Your task to perform on an android device: Open settings on Google Maps Image 0: 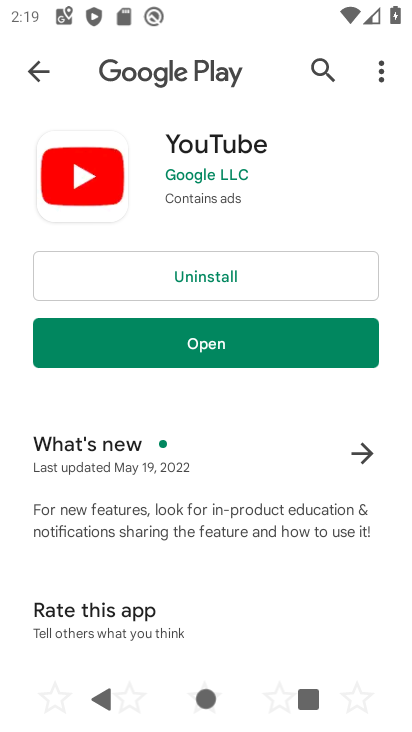
Step 0: press home button
Your task to perform on an android device: Open settings on Google Maps Image 1: 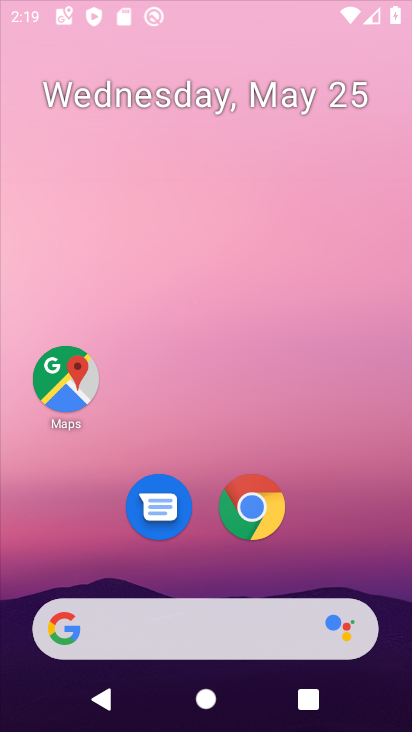
Step 1: drag from (260, 630) to (223, 174)
Your task to perform on an android device: Open settings on Google Maps Image 2: 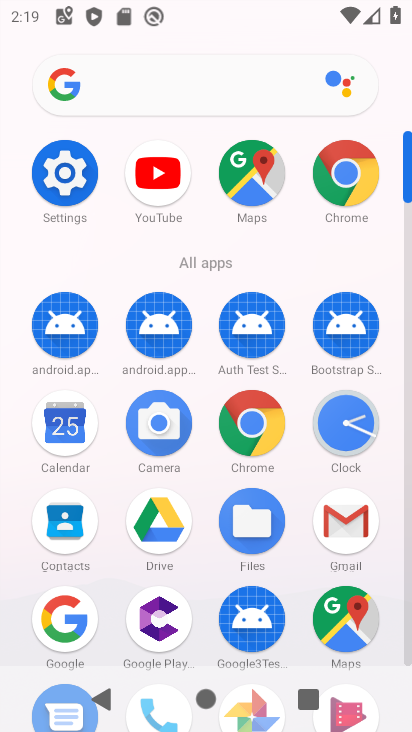
Step 2: drag from (216, 528) to (235, 263)
Your task to perform on an android device: Open settings on Google Maps Image 3: 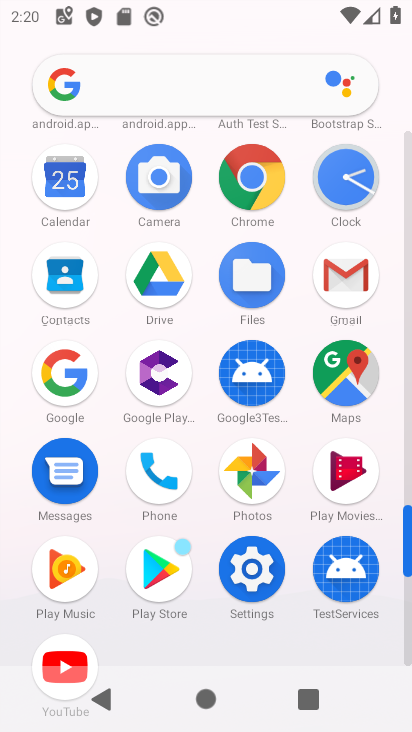
Step 3: click (344, 387)
Your task to perform on an android device: Open settings on Google Maps Image 4: 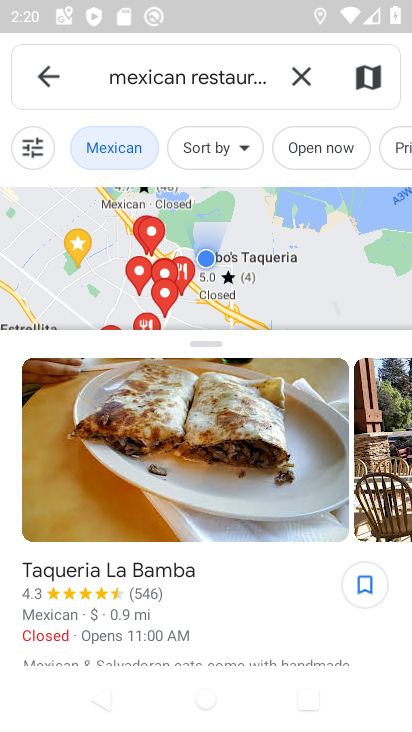
Step 4: click (305, 74)
Your task to perform on an android device: Open settings on Google Maps Image 5: 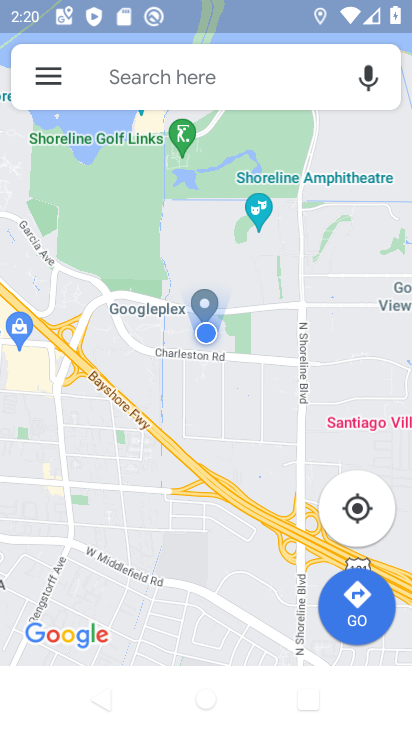
Step 5: click (60, 85)
Your task to perform on an android device: Open settings on Google Maps Image 6: 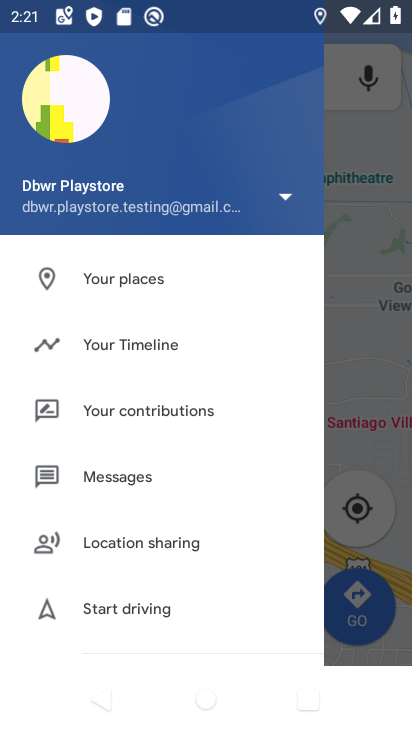
Step 6: drag from (132, 585) to (244, 192)
Your task to perform on an android device: Open settings on Google Maps Image 7: 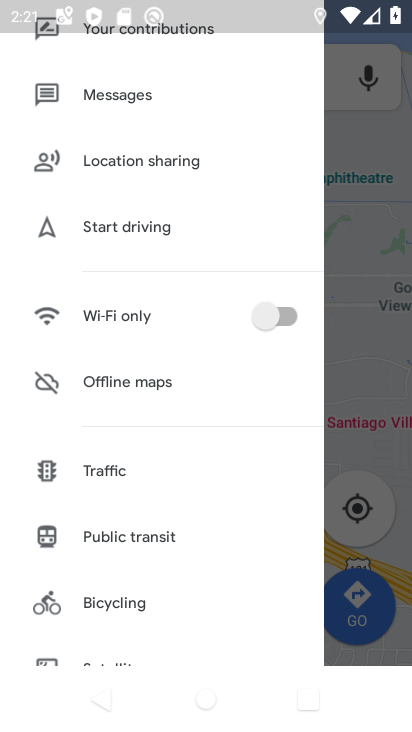
Step 7: drag from (135, 540) to (253, 138)
Your task to perform on an android device: Open settings on Google Maps Image 8: 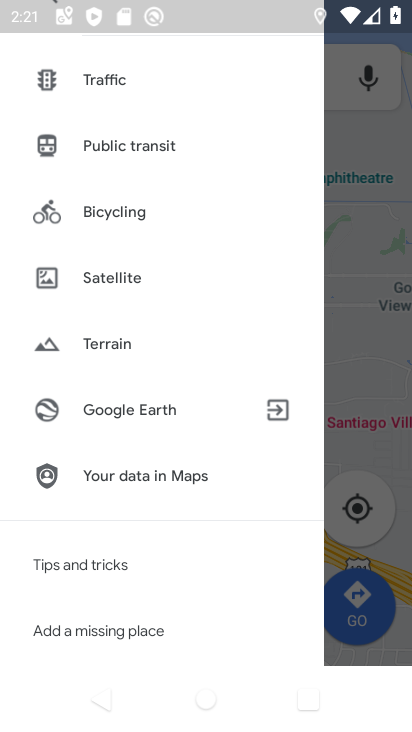
Step 8: drag from (123, 545) to (220, 208)
Your task to perform on an android device: Open settings on Google Maps Image 9: 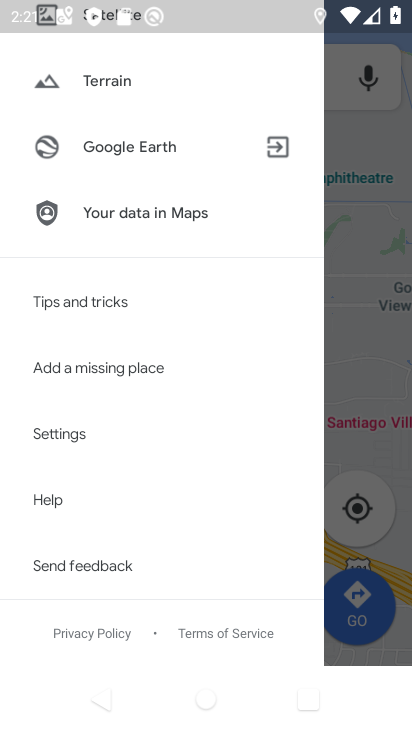
Step 9: click (72, 448)
Your task to perform on an android device: Open settings on Google Maps Image 10: 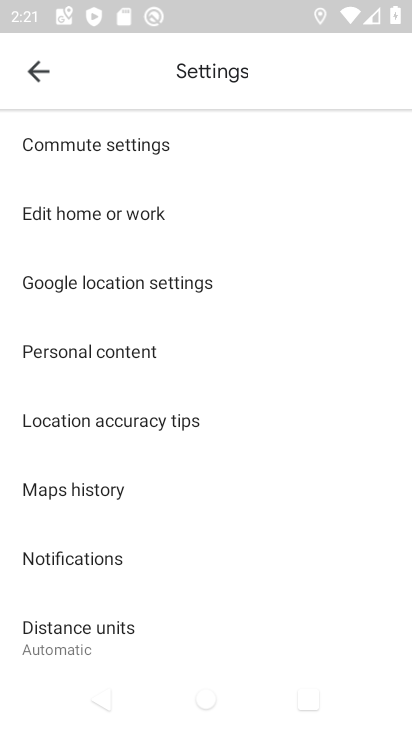
Step 10: task complete